Your task to perform on an android device: Open the phone app and click the voicemail tab. Image 0: 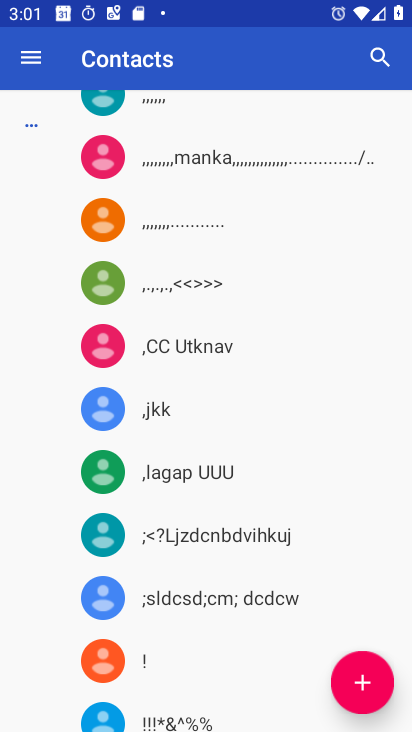
Step 0: press home button
Your task to perform on an android device: Open the phone app and click the voicemail tab. Image 1: 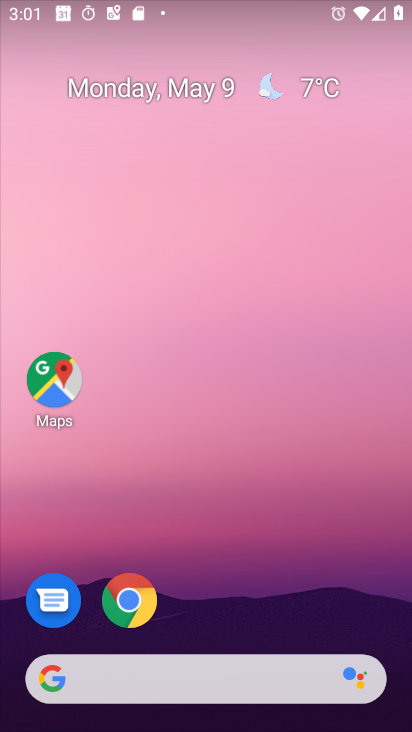
Step 1: drag from (177, 672) to (200, 293)
Your task to perform on an android device: Open the phone app and click the voicemail tab. Image 2: 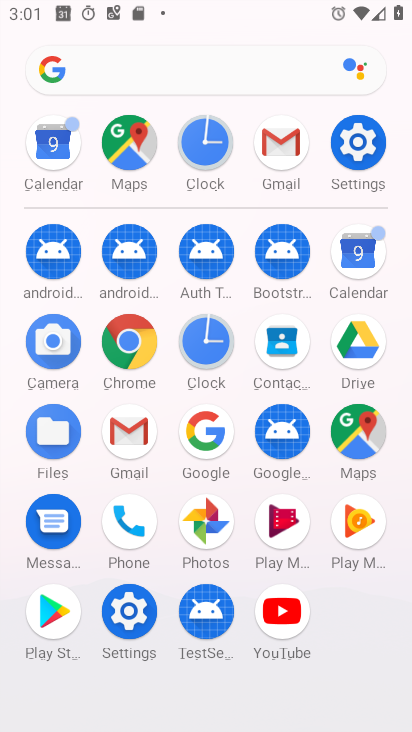
Step 2: click (131, 522)
Your task to perform on an android device: Open the phone app and click the voicemail tab. Image 3: 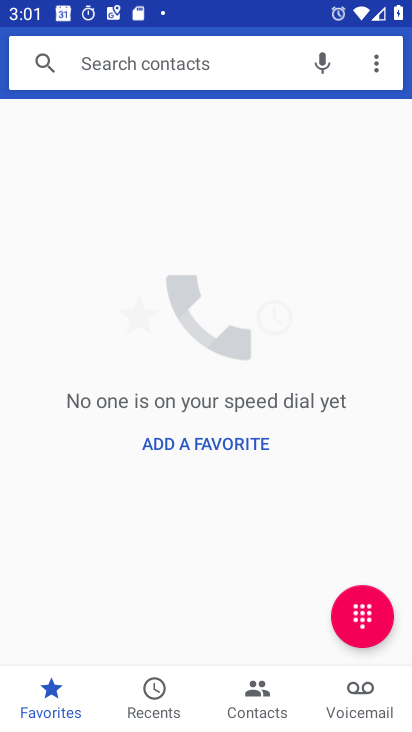
Step 3: click (324, 692)
Your task to perform on an android device: Open the phone app and click the voicemail tab. Image 4: 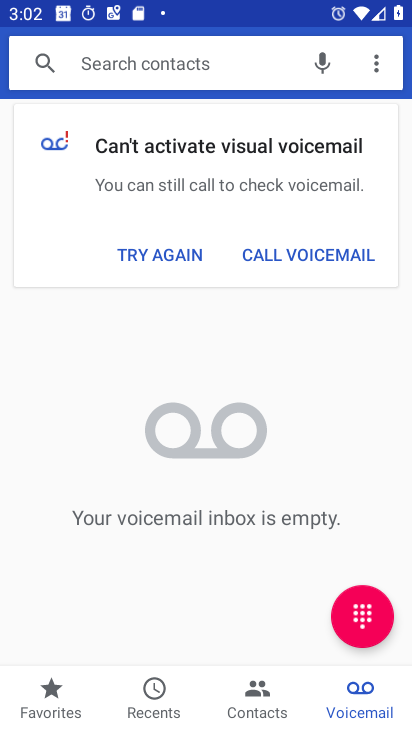
Step 4: task complete